Your task to perform on an android device: Open Reddit.com Image 0: 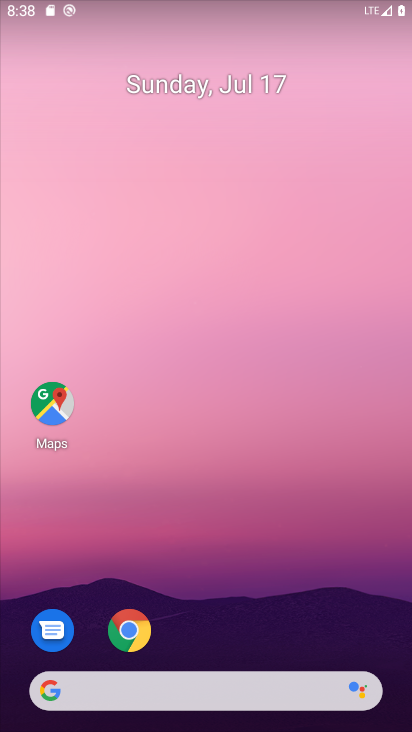
Step 0: drag from (188, 620) to (173, 122)
Your task to perform on an android device: Open Reddit.com Image 1: 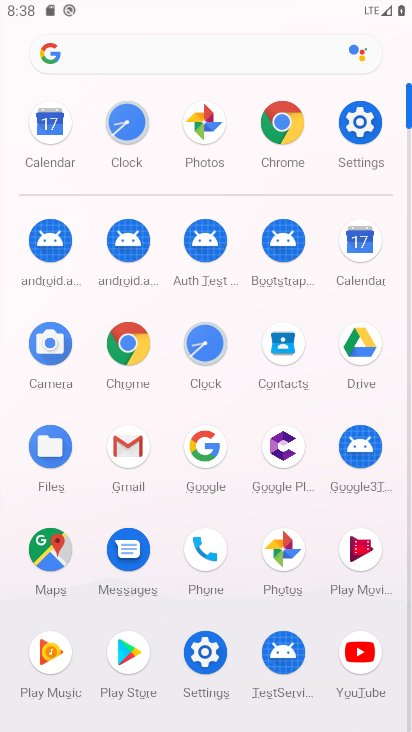
Step 1: click (129, 353)
Your task to perform on an android device: Open Reddit.com Image 2: 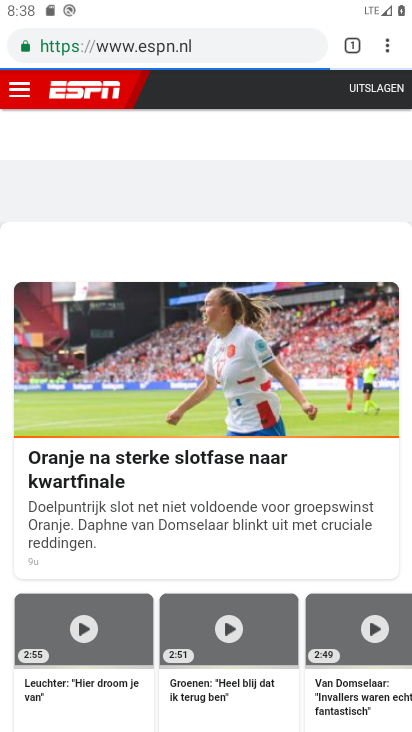
Step 2: click (161, 48)
Your task to perform on an android device: Open Reddit.com Image 3: 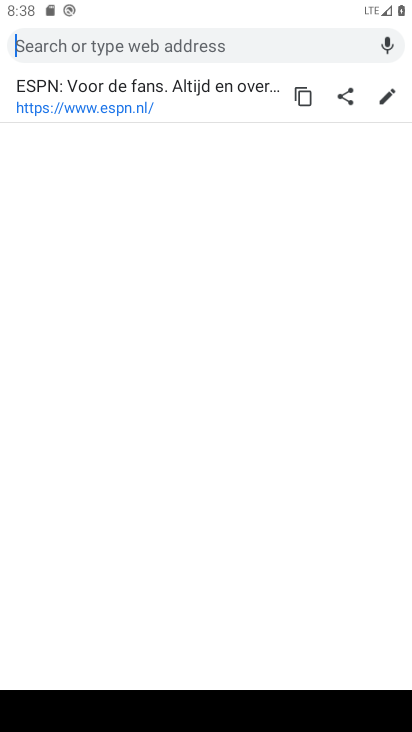
Step 3: type "reddit.com"
Your task to perform on an android device: Open Reddit.com Image 4: 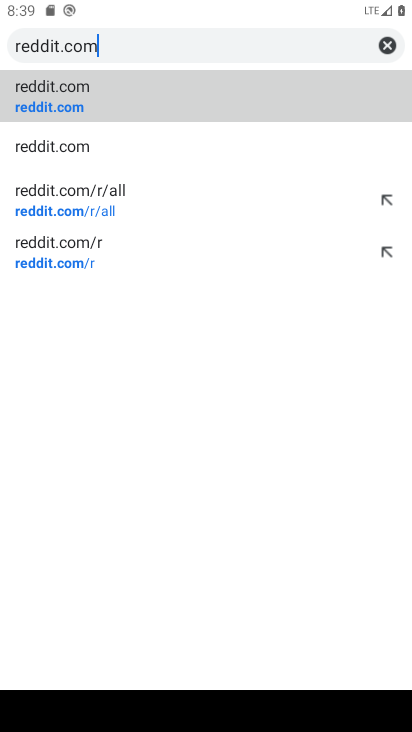
Step 4: click (93, 80)
Your task to perform on an android device: Open Reddit.com Image 5: 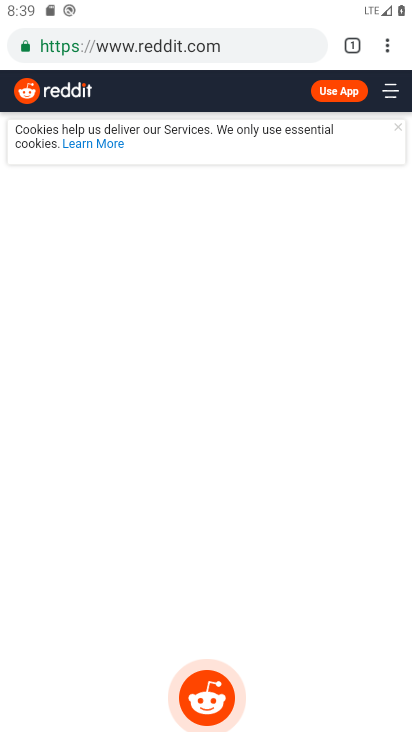
Step 5: task complete